Your task to perform on an android device: Open the Play Movies app and select the watchlist tab. Image 0: 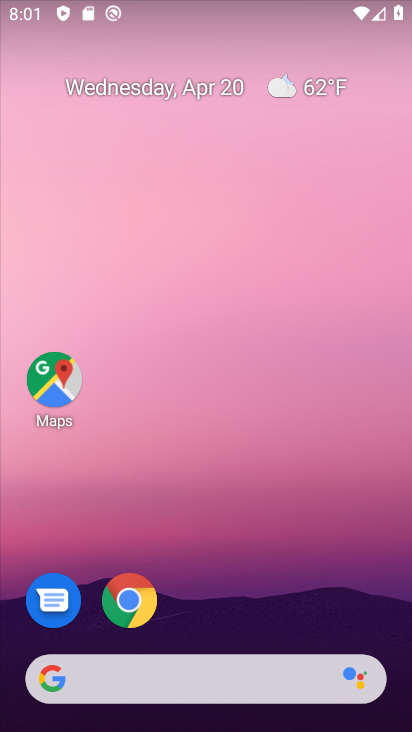
Step 0: drag from (198, 727) to (190, 94)
Your task to perform on an android device: Open the Play Movies app and select the watchlist tab. Image 1: 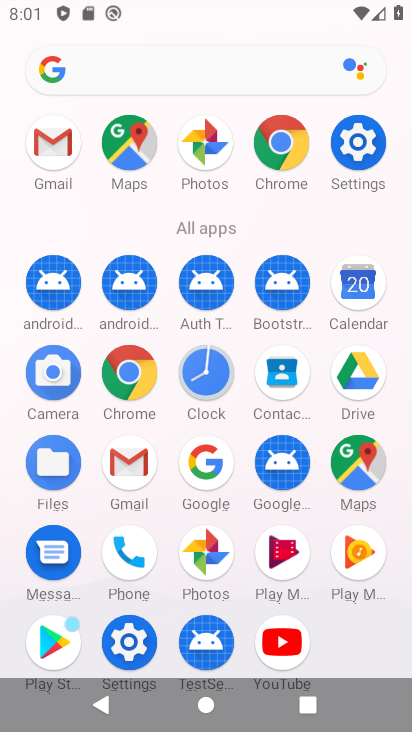
Step 1: click (280, 551)
Your task to perform on an android device: Open the Play Movies app and select the watchlist tab. Image 2: 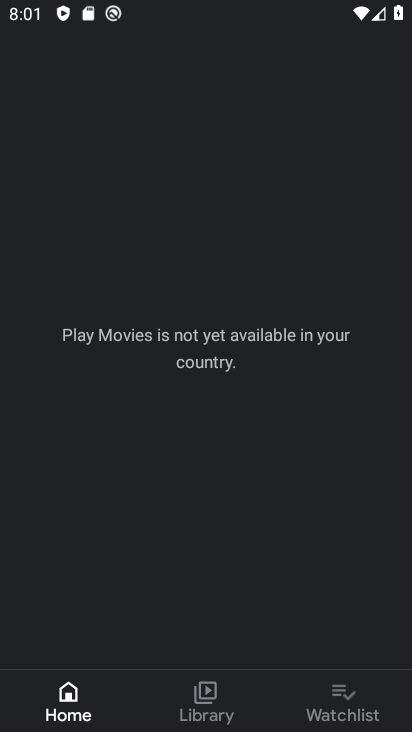
Step 2: click (344, 697)
Your task to perform on an android device: Open the Play Movies app and select the watchlist tab. Image 3: 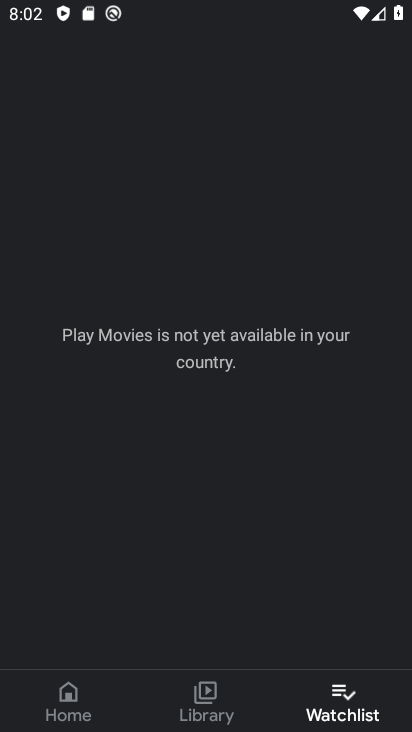
Step 3: task complete